Your task to perform on an android device: find snoozed emails in the gmail app Image 0: 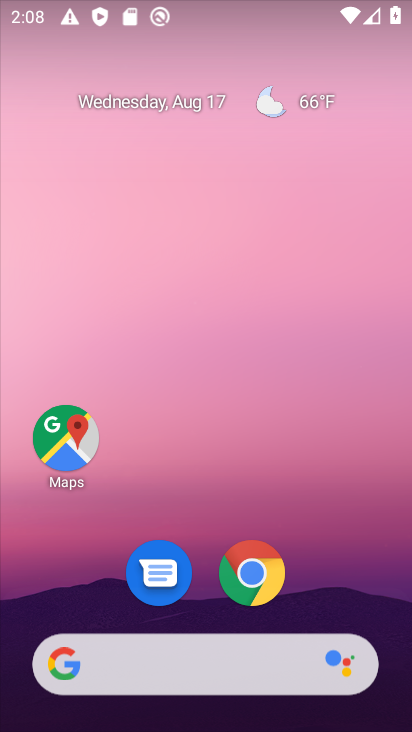
Step 0: drag from (208, 494) to (245, 0)
Your task to perform on an android device: find snoozed emails in the gmail app Image 1: 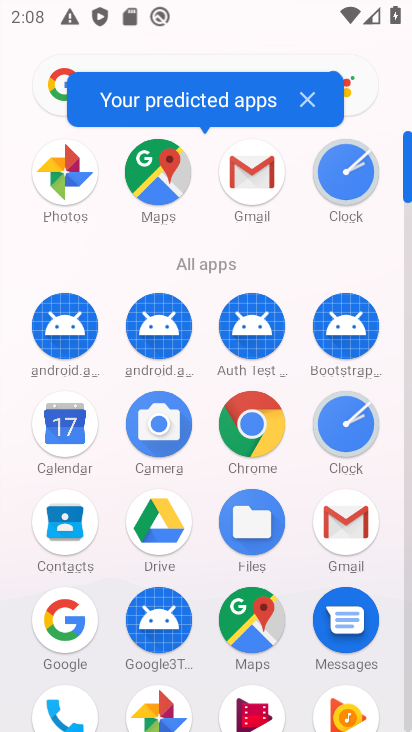
Step 1: click (252, 180)
Your task to perform on an android device: find snoozed emails in the gmail app Image 2: 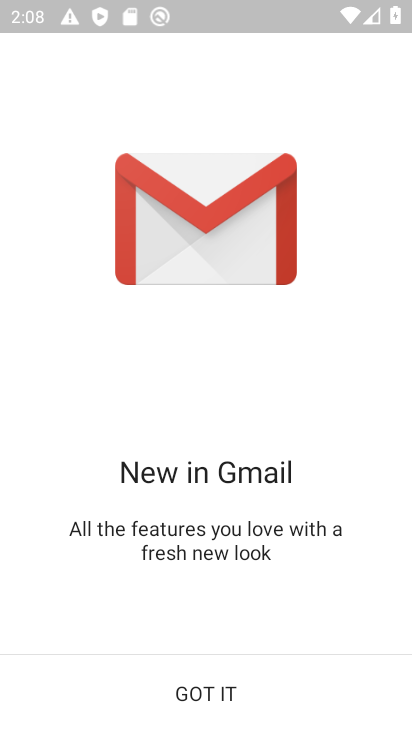
Step 2: click (271, 694)
Your task to perform on an android device: find snoozed emails in the gmail app Image 3: 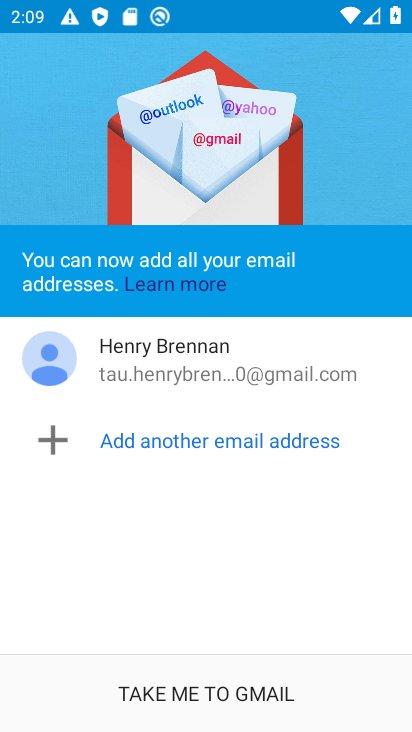
Step 3: click (271, 694)
Your task to perform on an android device: find snoozed emails in the gmail app Image 4: 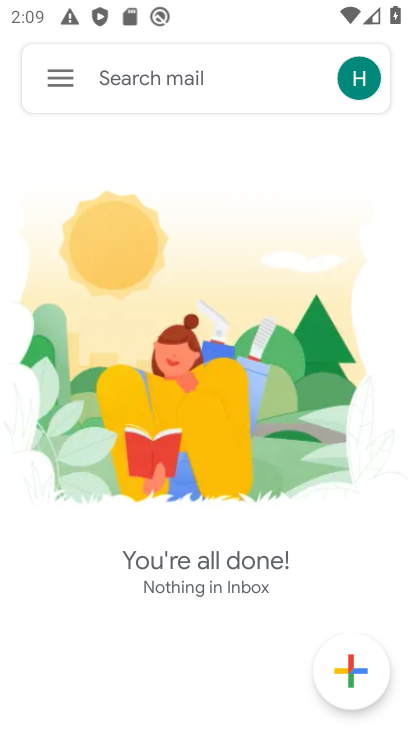
Step 4: click (66, 84)
Your task to perform on an android device: find snoozed emails in the gmail app Image 5: 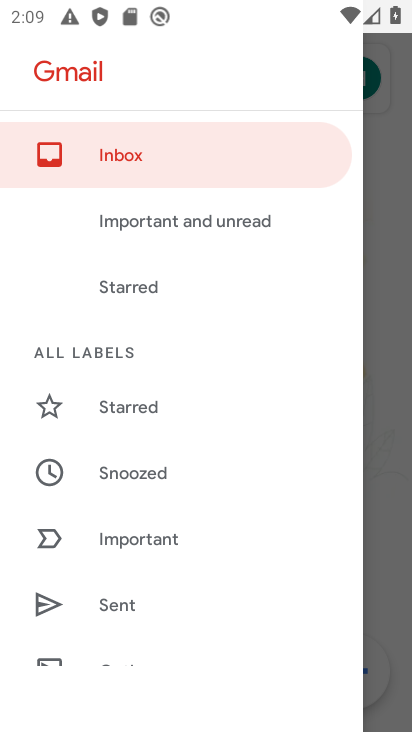
Step 5: click (173, 469)
Your task to perform on an android device: find snoozed emails in the gmail app Image 6: 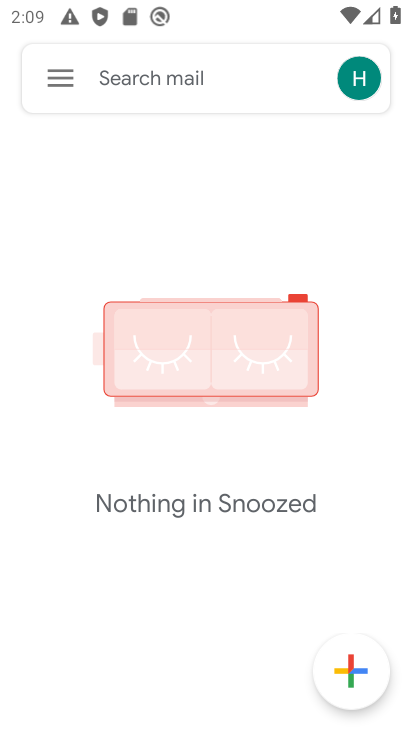
Step 6: task complete